Your task to perform on an android device: change your default location settings in chrome Image 0: 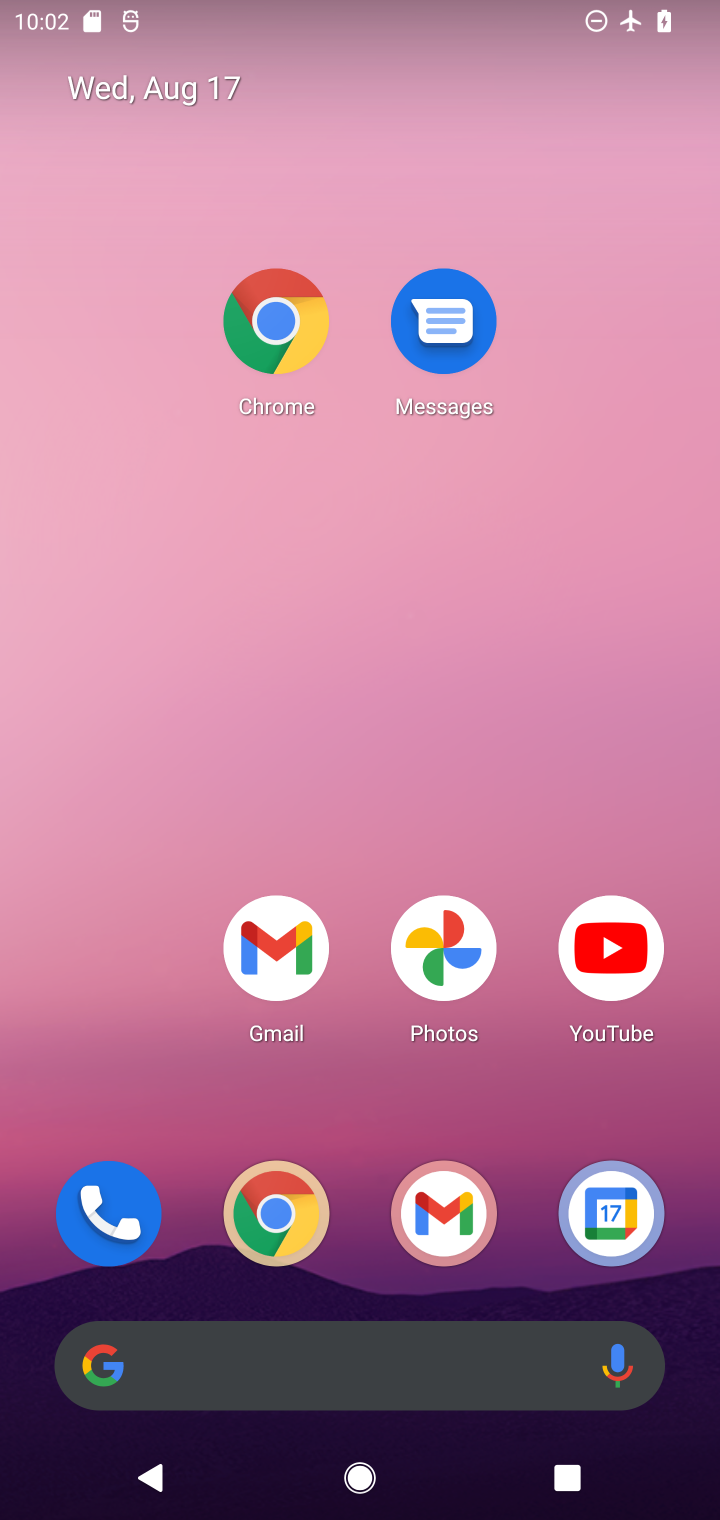
Step 0: click (264, 1218)
Your task to perform on an android device: change your default location settings in chrome Image 1: 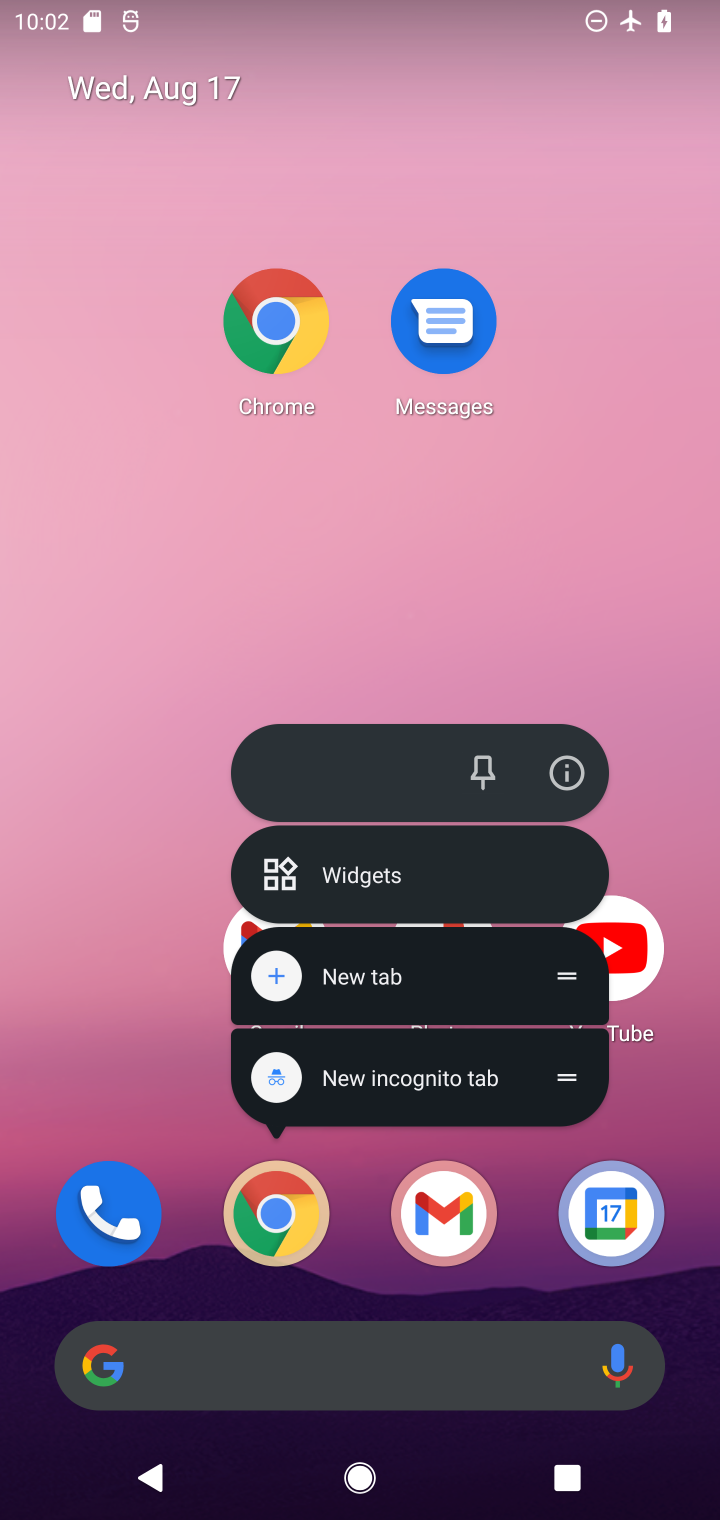
Step 1: click (260, 1224)
Your task to perform on an android device: change your default location settings in chrome Image 2: 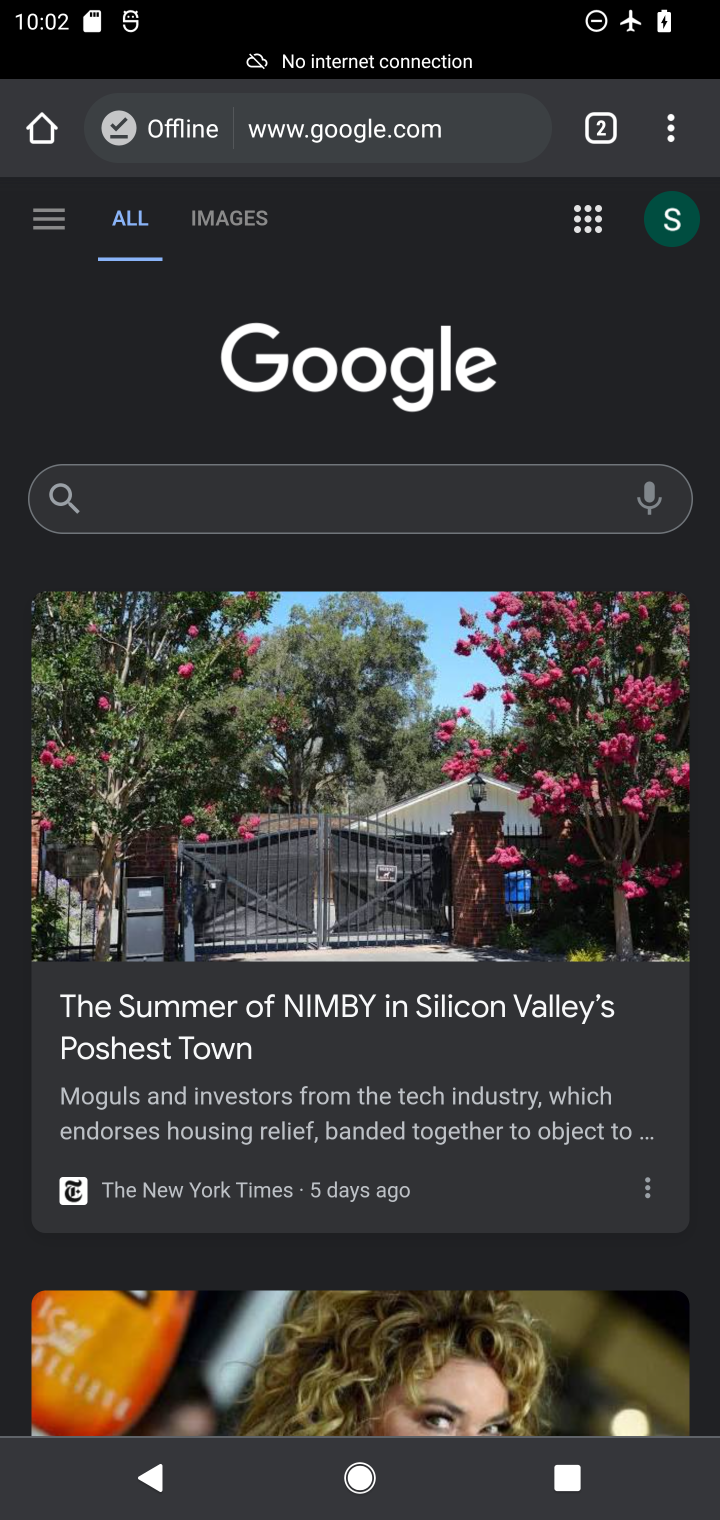
Step 2: click (679, 136)
Your task to perform on an android device: change your default location settings in chrome Image 3: 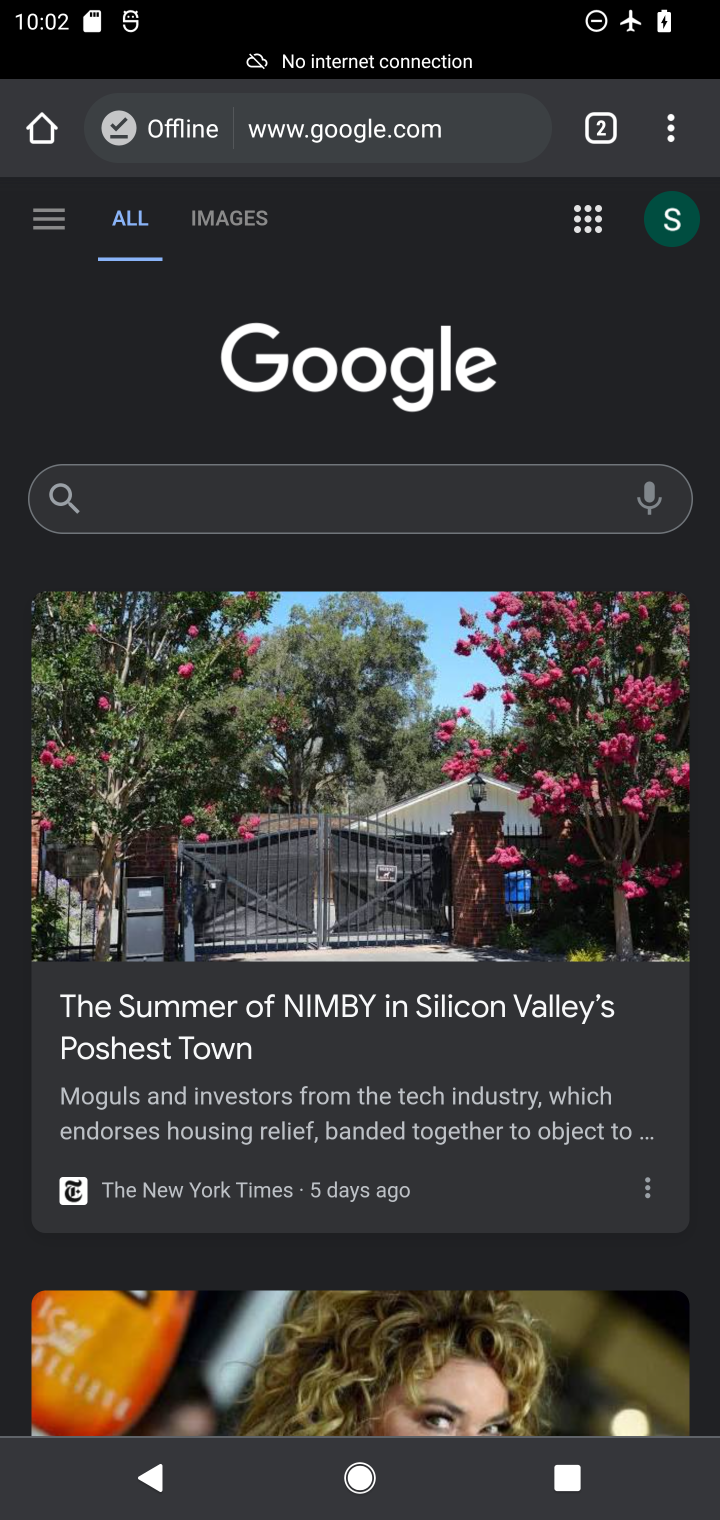
Step 3: task complete